Your task to perform on an android device: turn vacation reply on in the gmail app Image 0: 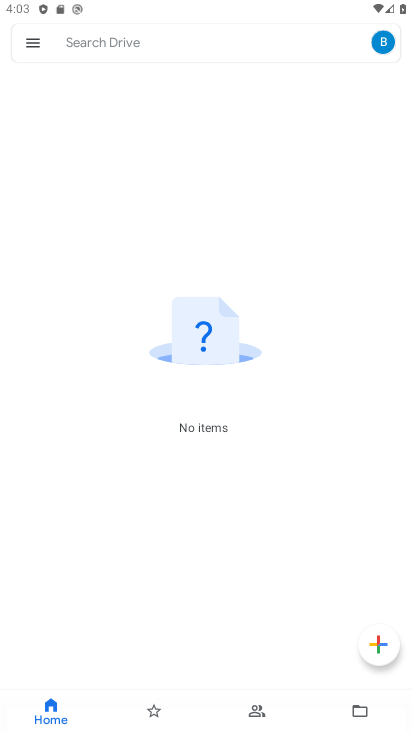
Step 0: press home button
Your task to perform on an android device: turn vacation reply on in the gmail app Image 1: 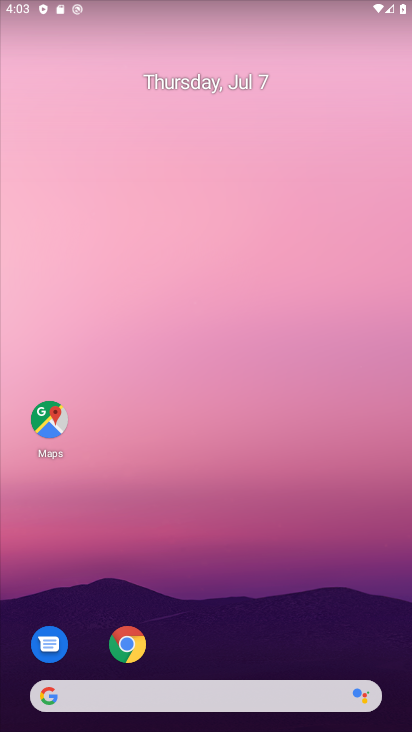
Step 1: drag from (236, 634) to (321, 160)
Your task to perform on an android device: turn vacation reply on in the gmail app Image 2: 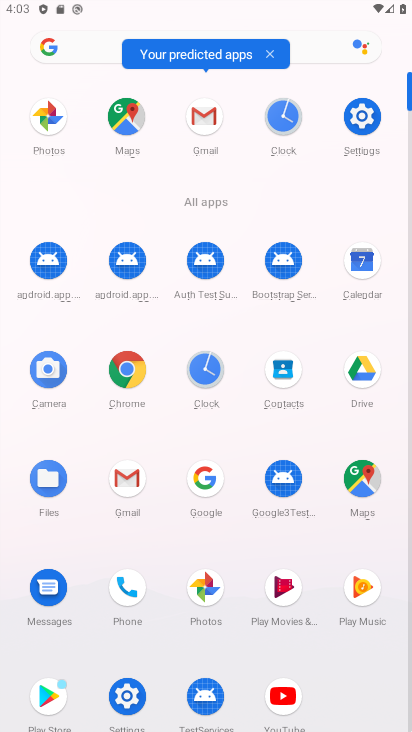
Step 2: click (204, 114)
Your task to perform on an android device: turn vacation reply on in the gmail app Image 3: 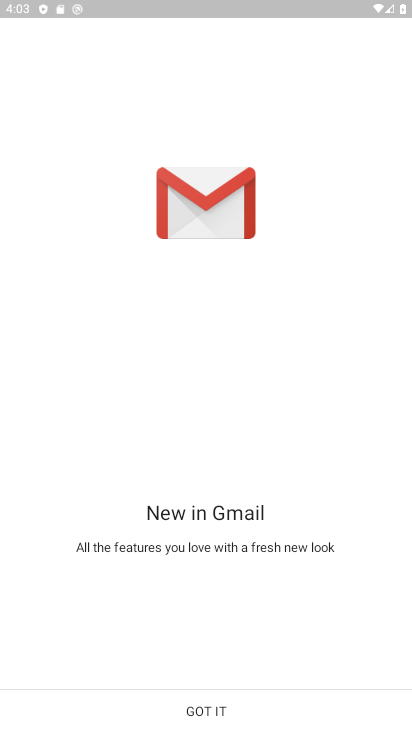
Step 3: click (209, 711)
Your task to perform on an android device: turn vacation reply on in the gmail app Image 4: 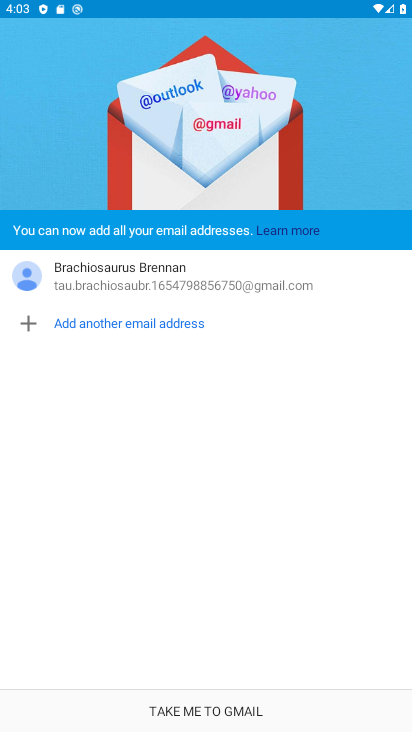
Step 4: click (209, 711)
Your task to perform on an android device: turn vacation reply on in the gmail app Image 5: 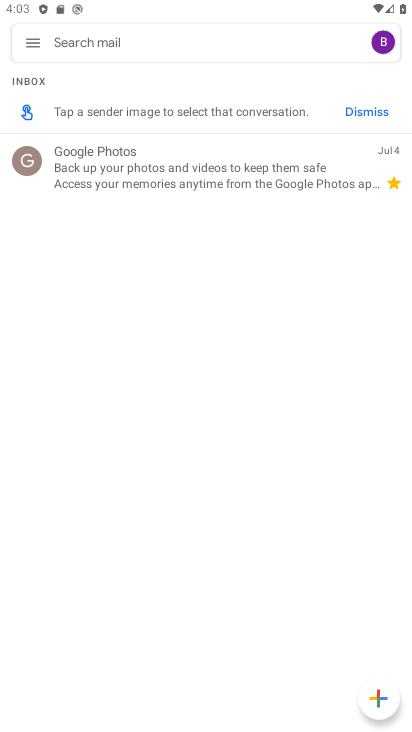
Step 5: click (32, 40)
Your task to perform on an android device: turn vacation reply on in the gmail app Image 6: 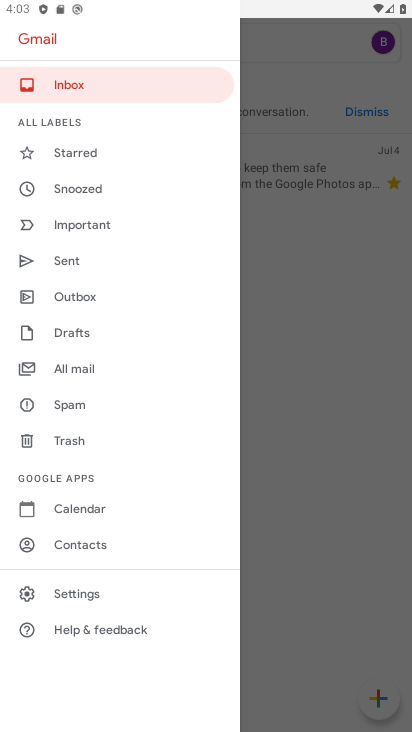
Step 6: click (92, 594)
Your task to perform on an android device: turn vacation reply on in the gmail app Image 7: 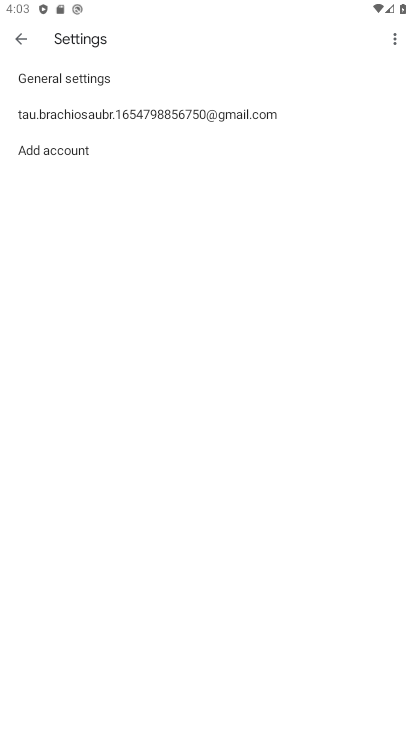
Step 7: click (88, 113)
Your task to perform on an android device: turn vacation reply on in the gmail app Image 8: 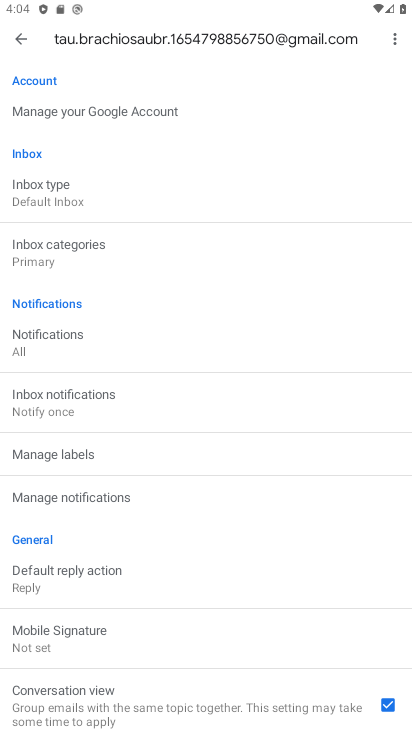
Step 8: drag from (84, 524) to (126, 427)
Your task to perform on an android device: turn vacation reply on in the gmail app Image 9: 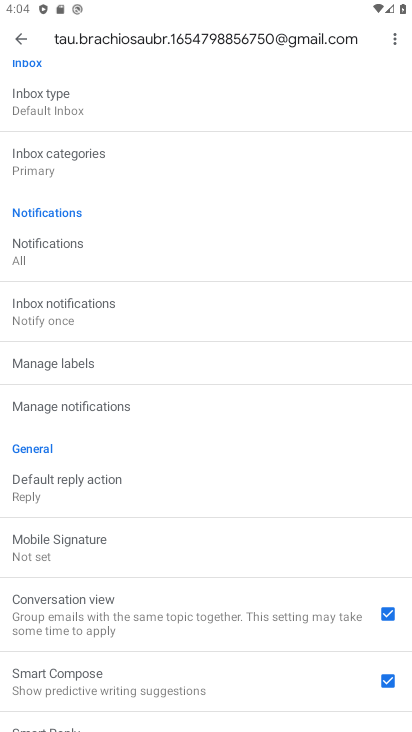
Step 9: drag from (63, 561) to (119, 484)
Your task to perform on an android device: turn vacation reply on in the gmail app Image 10: 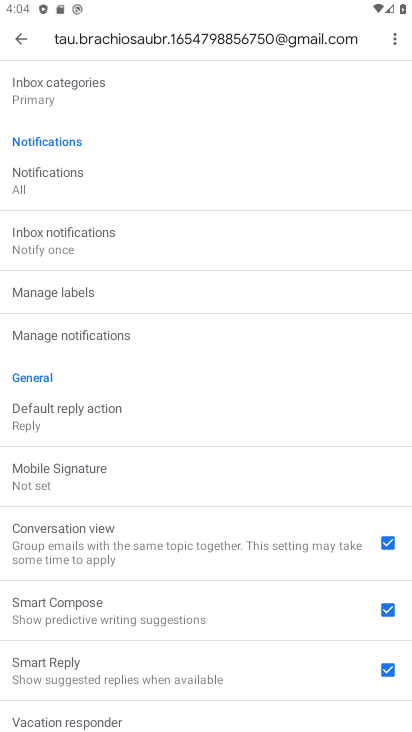
Step 10: drag from (62, 584) to (111, 502)
Your task to perform on an android device: turn vacation reply on in the gmail app Image 11: 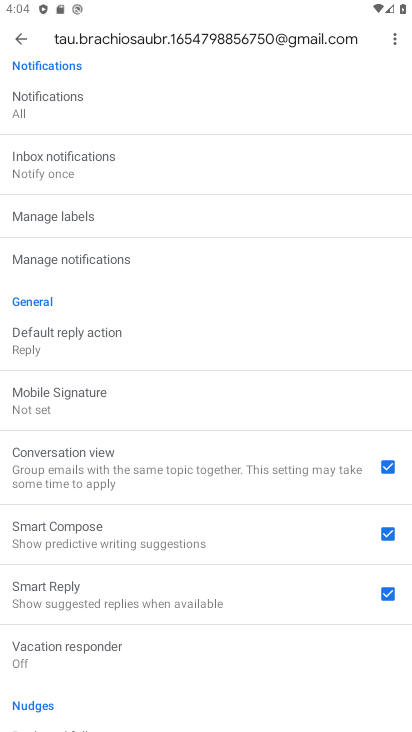
Step 11: drag from (76, 631) to (147, 549)
Your task to perform on an android device: turn vacation reply on in the gmail app Image 12: 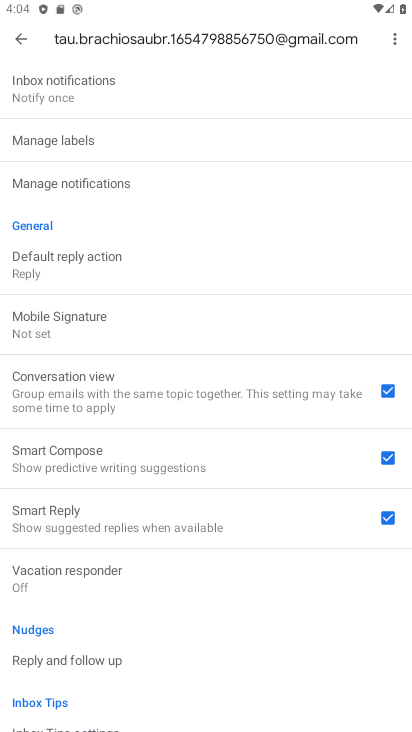
Step 12: click (85, 580)
Your task to perform on an android device: turn vacation reply on in the gmail app Image 13: 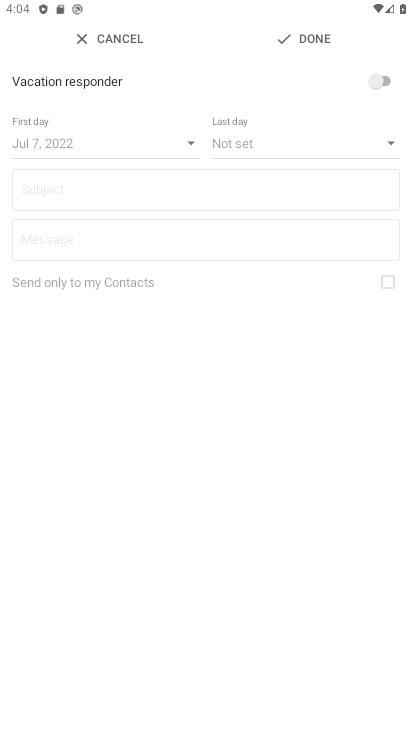
Step 13: click (365, 84)
Your task to perform on an android device: turn vacation reply on in the gmail app Image 14: 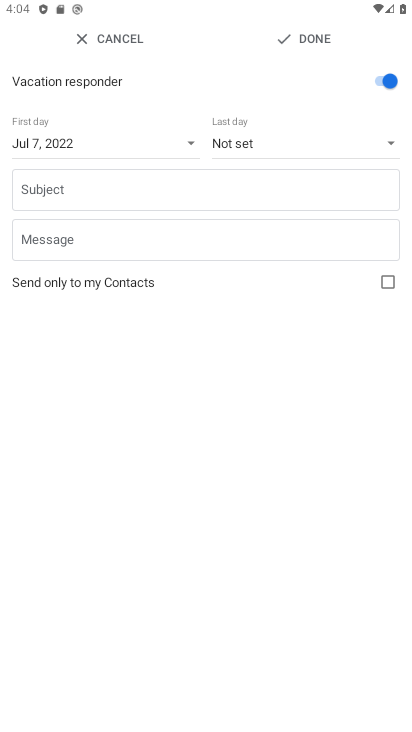
Step 14: task complete